Your task to perform on an android device: Clear the cart on amazon. Image 0: 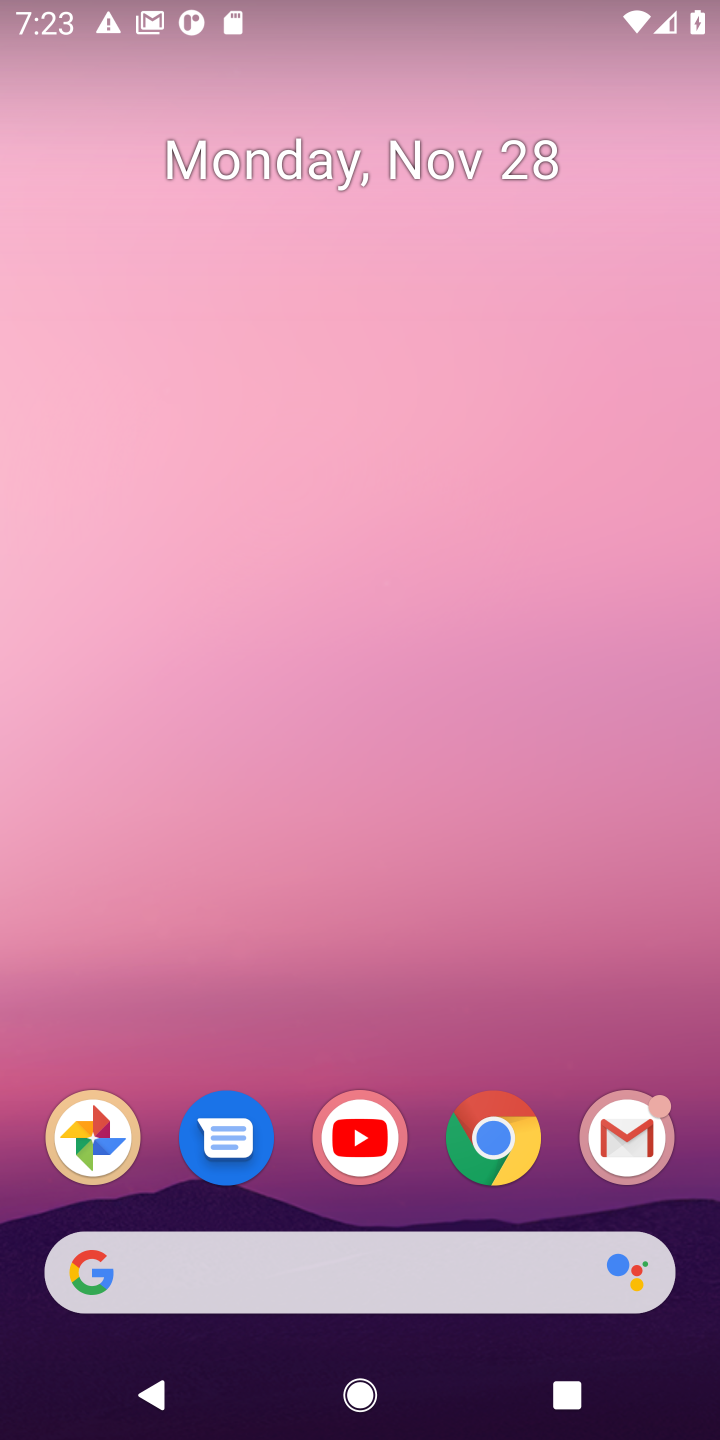
Step 0: click (504, 1155)
Your task to perform on an android device: Clear the cart on amazon. Image 1: 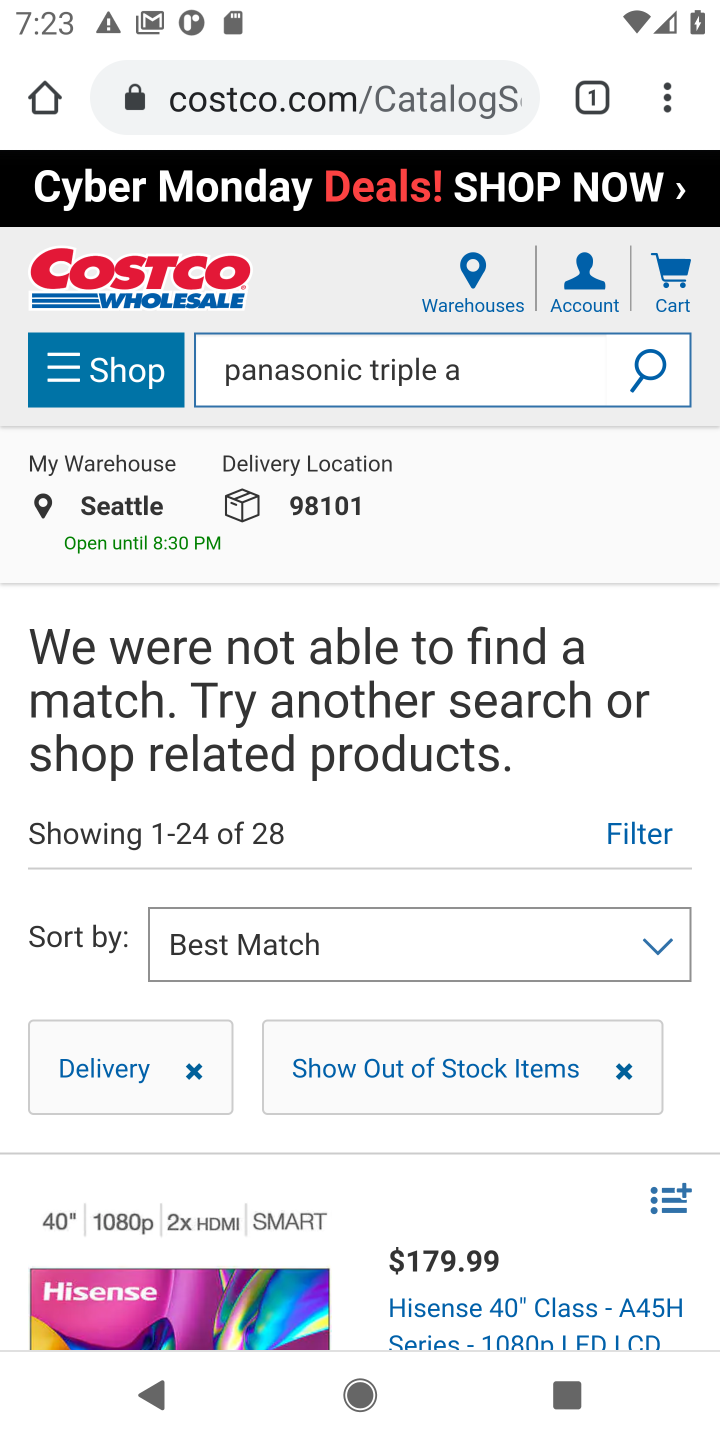
Step 1: click (321, 109)
Your task to perform on an android device: Clear the cart on amazon. Image 2: 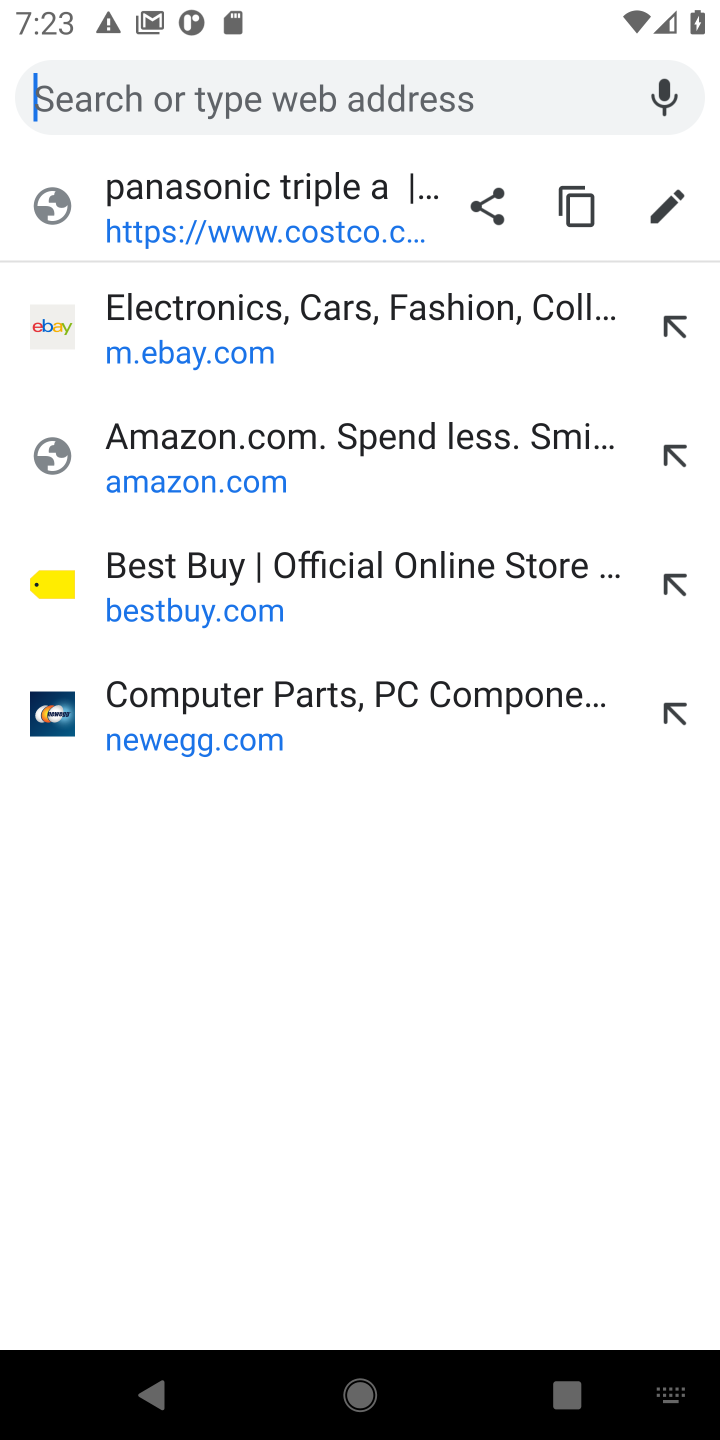
Step 2: click (180, 452)
Your task to perform on an android device: Clear the cart on amazon. Image 3: 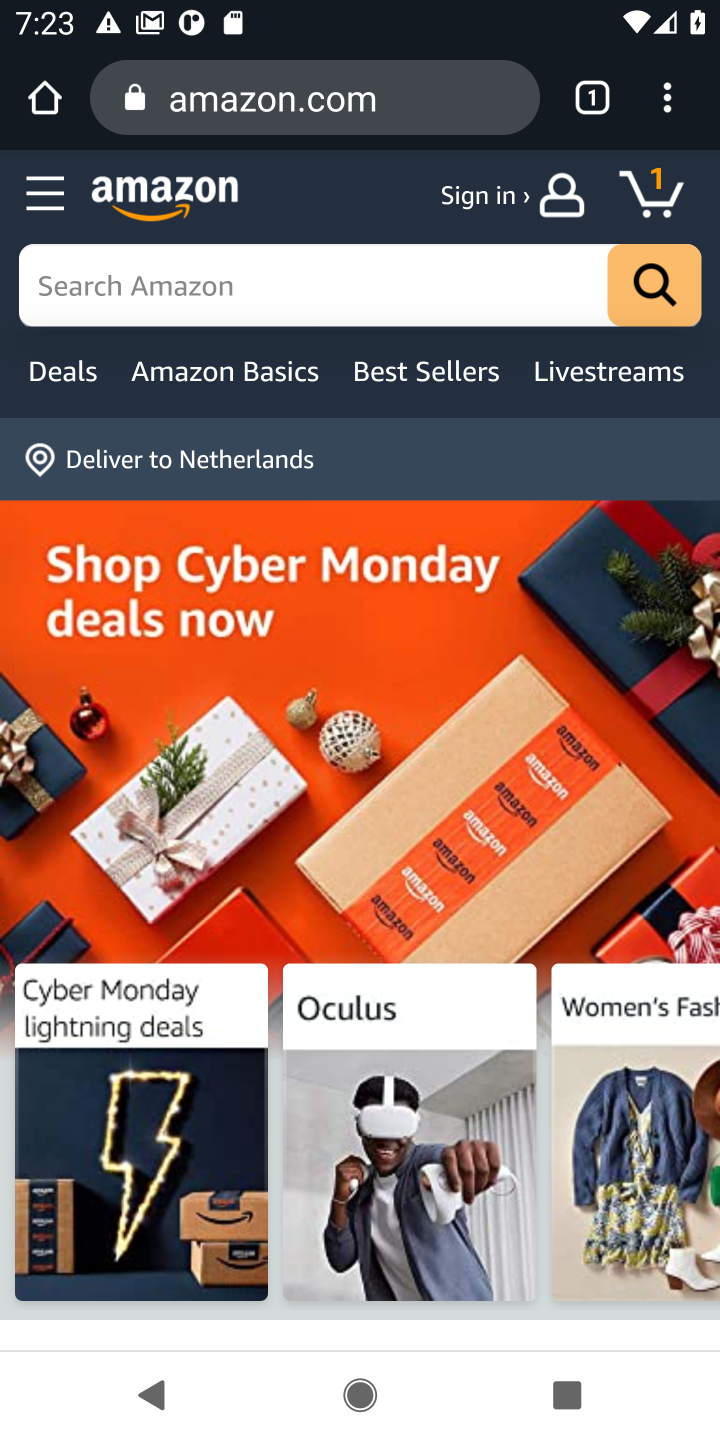
Step 3: click (662, 200)
Your task to perform on an android device: Clear the cart on amazon. Image 4: 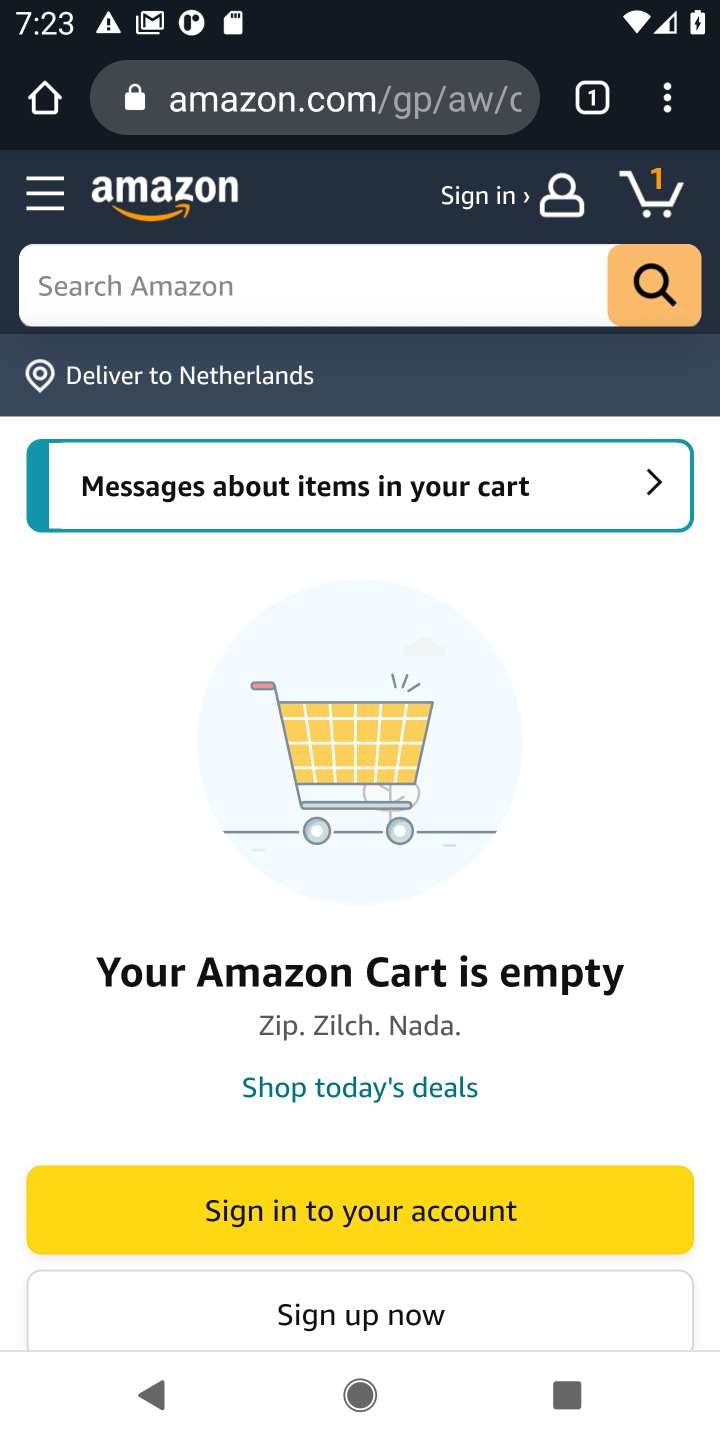
Step 4: drag from (604, 758) to (596, 930)
Your task to perform on an android device: Clear the cart on amazon. Image 5: 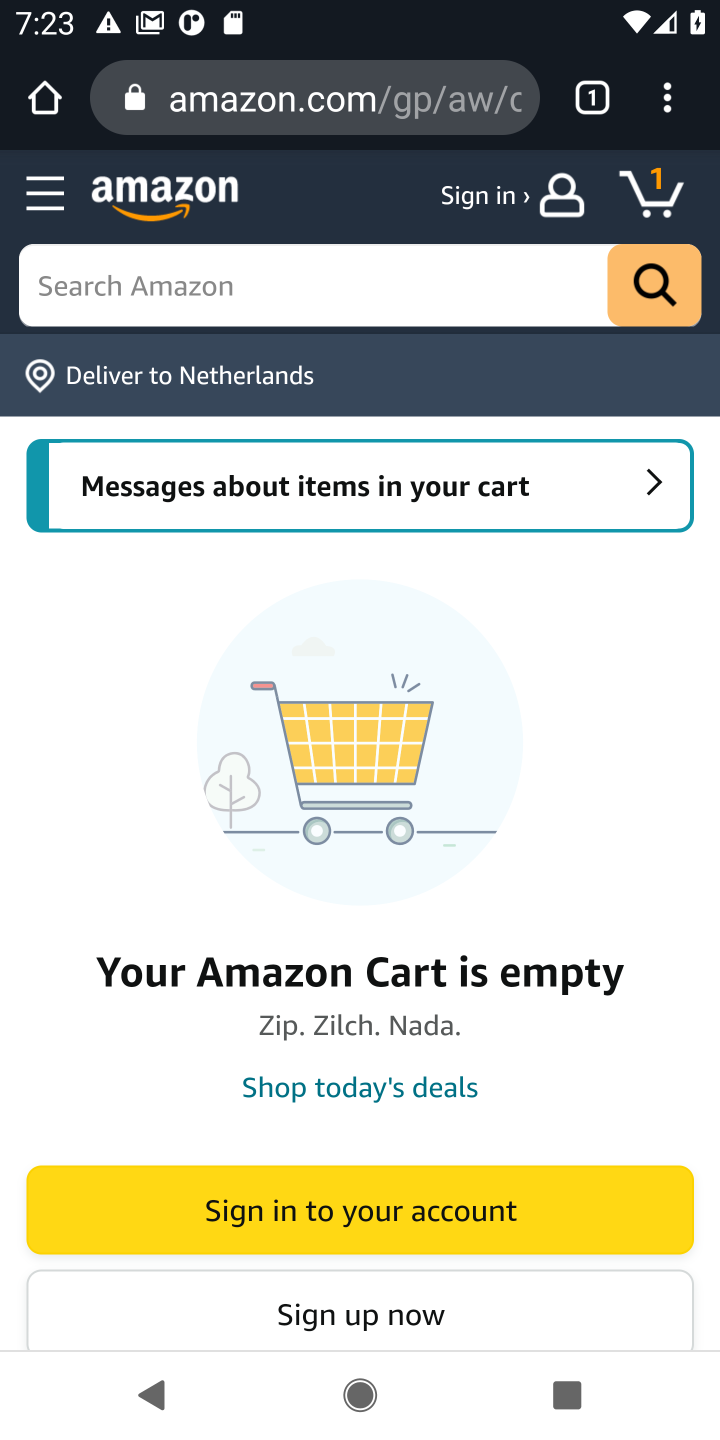
Step 5: click (662, 201)
Your task to perform on an android device: Clear the cart on amazon. Image 6: 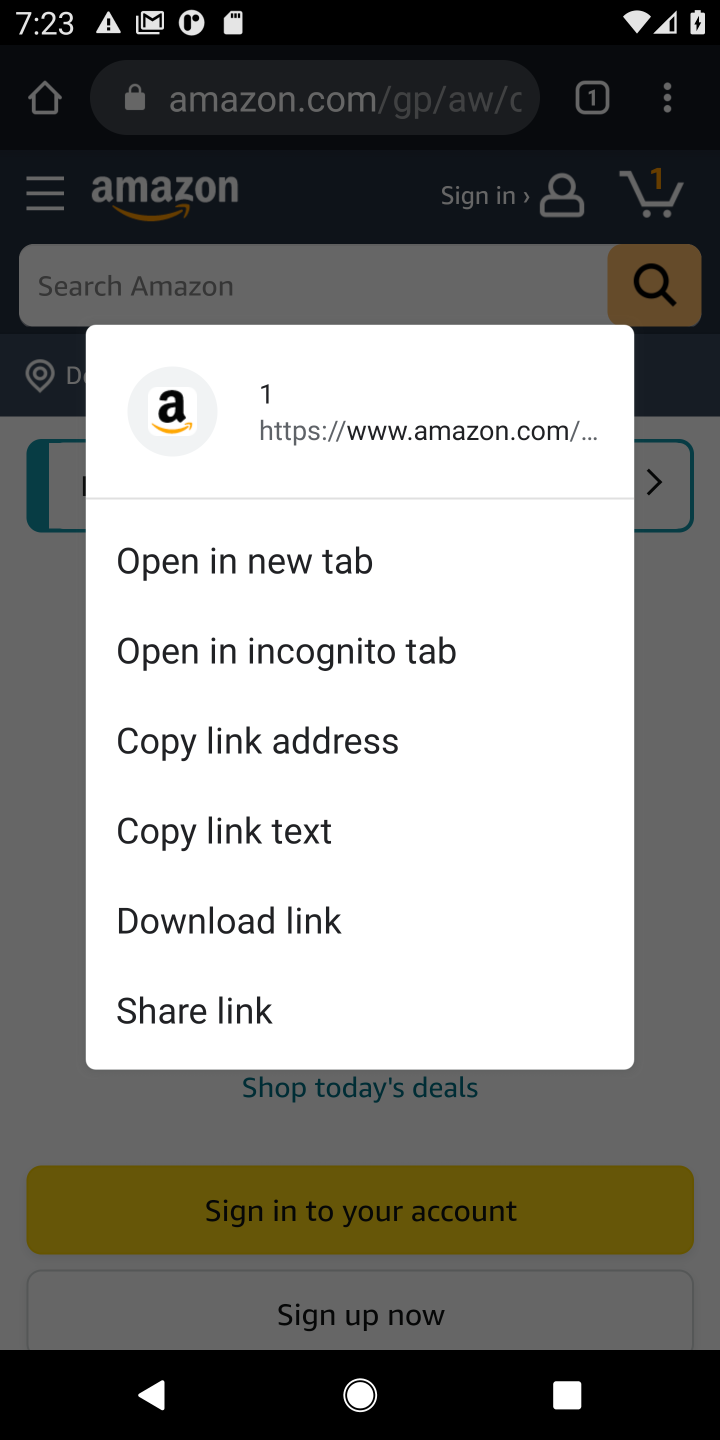
Step 6: click (662, 201)
Your task to perform on an android device: Clear the cart on amazon. Image 7: 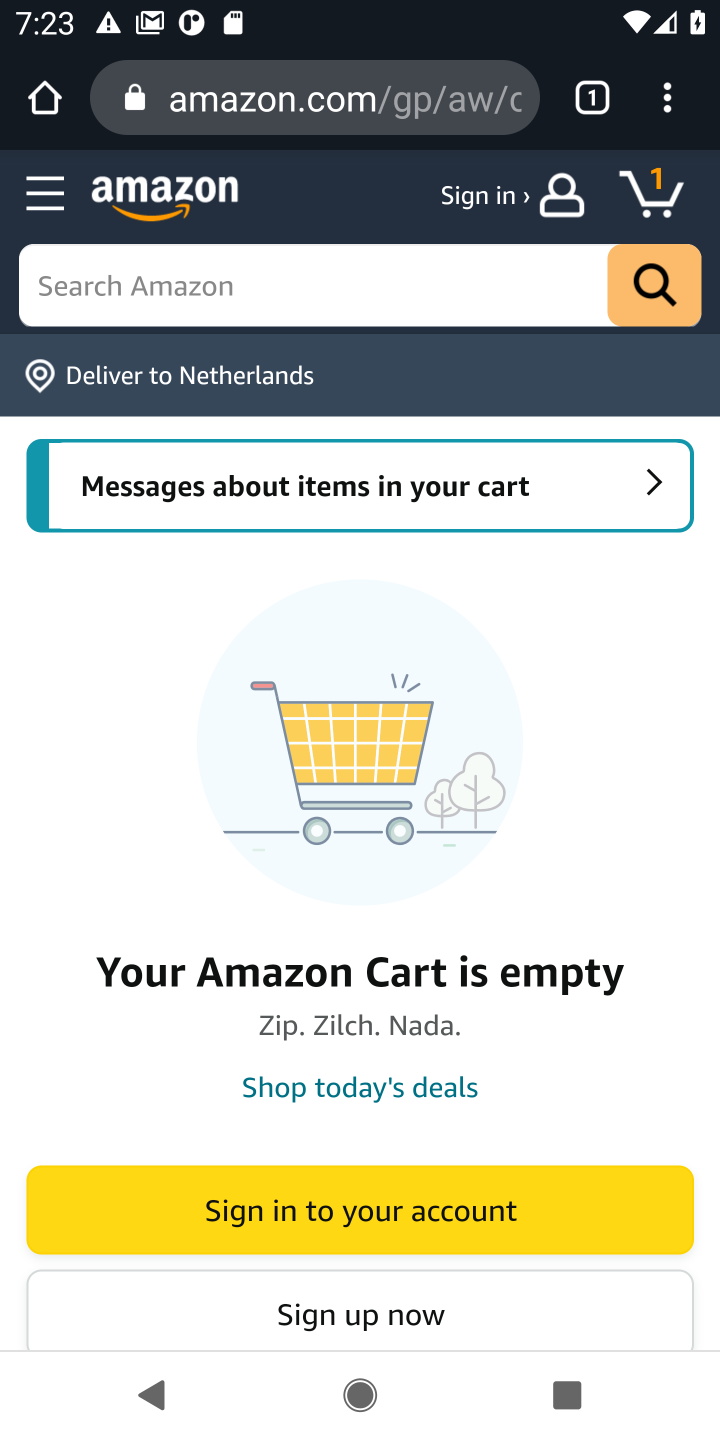
Step 7: click (650, 187)
Your task to perform on an android device: Clear the cart on amazon. Image 8: 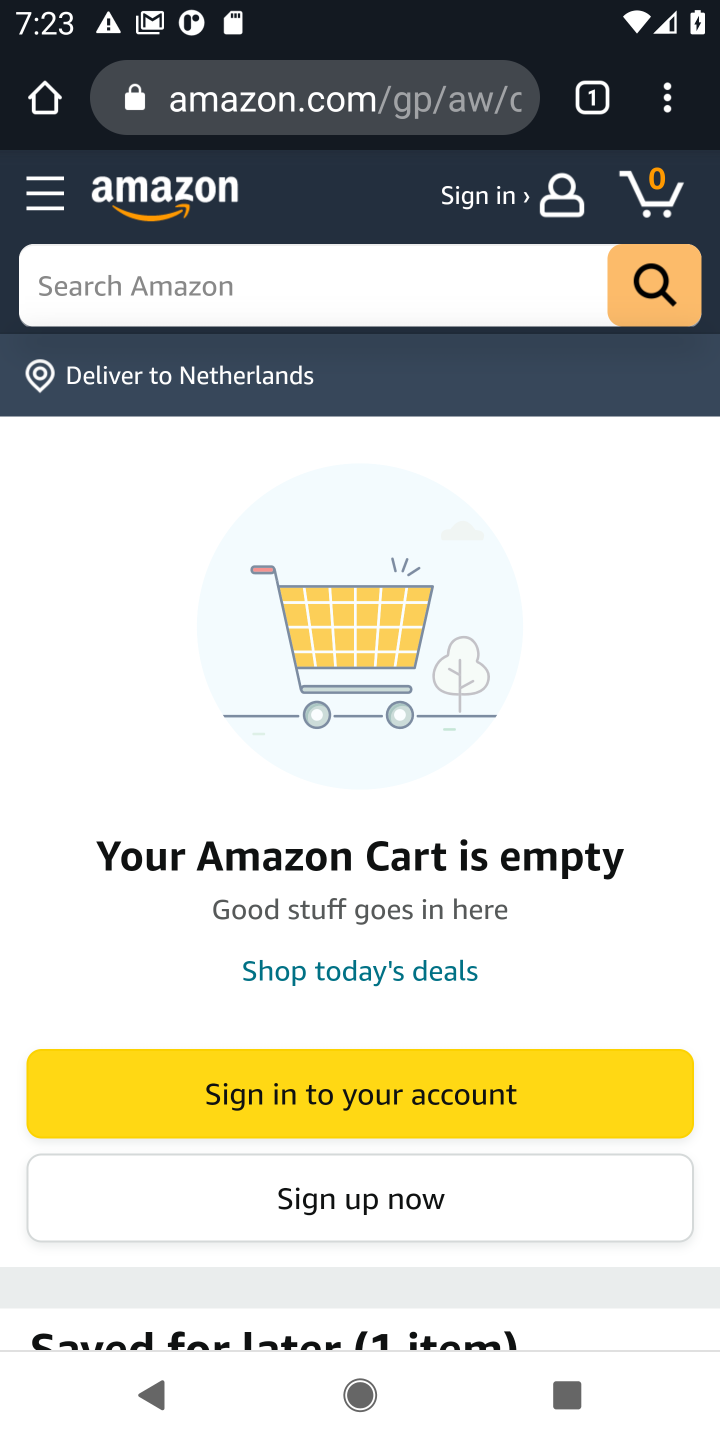
Step 8: task complete